Your task to perform on an android device: change the clock style Image 0: 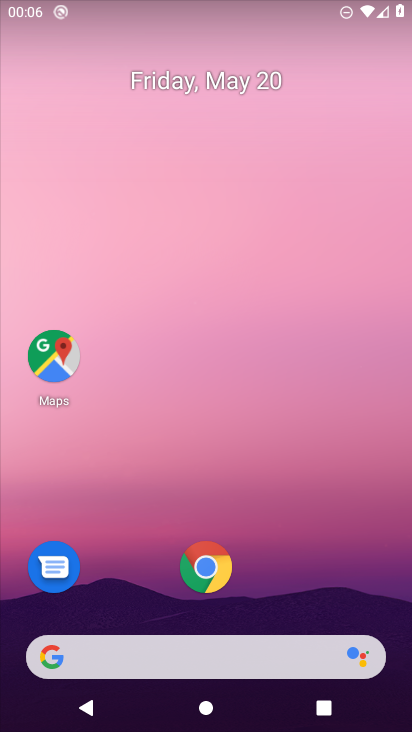
Step 0: press home button
Your task to perform on an android device: change the clock style Image 1: 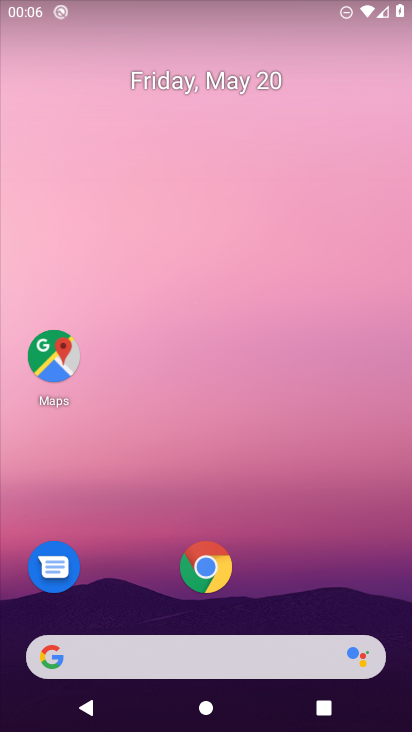
Step 1: press home button
Your task to perform on an android device: change the clock style Image 2: 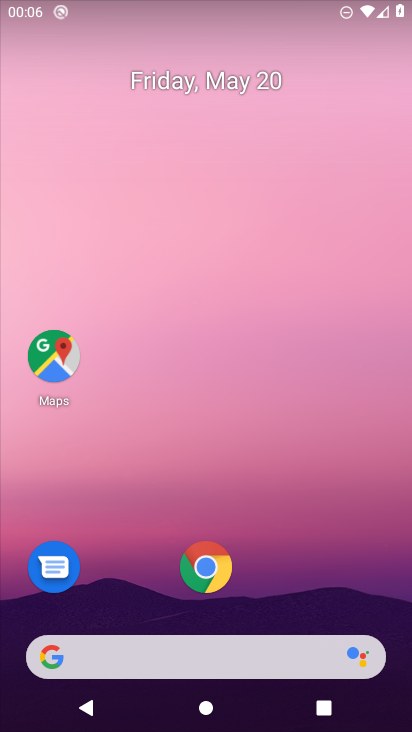
Step 2: drag from (265, 615) to (332, 36)
Your task to perform on an android device: change the clock style Image 3: 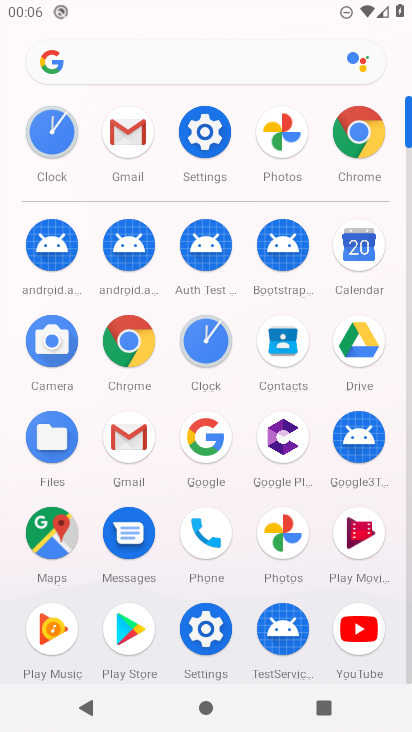
Step 3: click (53, 124)
Your task to perform on an android device: change the clock style Image 4: 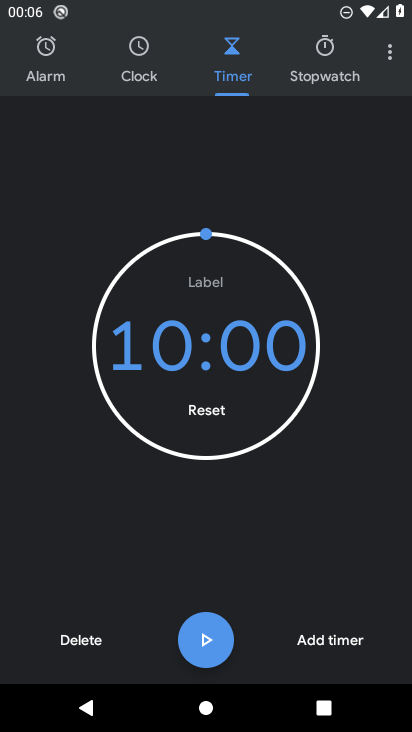
Step 4: click (386, 51)
Your task to perform on an android device: change the clock style Image 5: 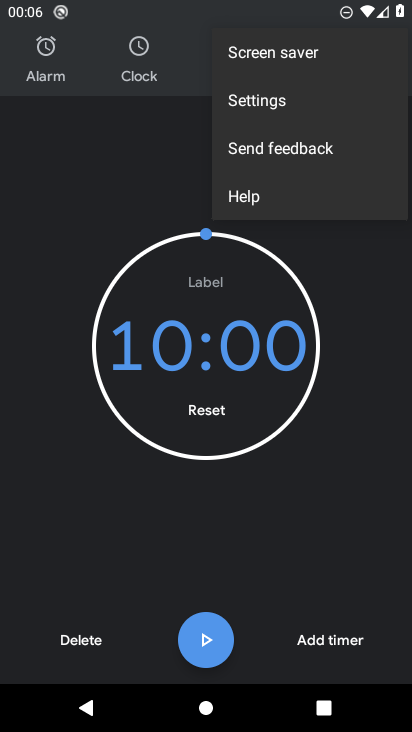
Step 5: click (300, 95)
Your task to perform on an android device: change the clock style Image 6: 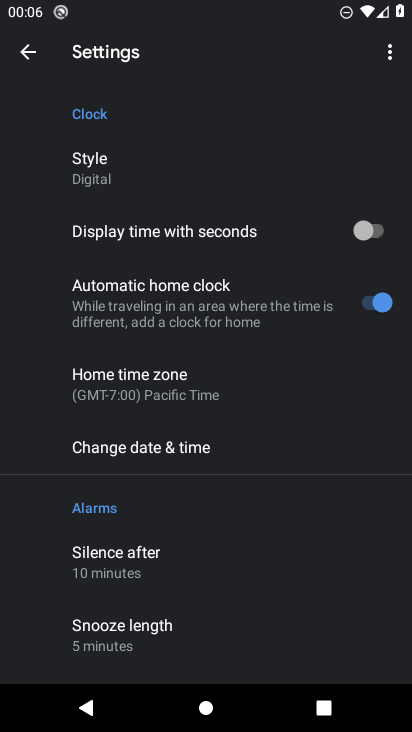
Step 6: click (132, 163)
Your task to perform on an android device: change the clock style Image 7: 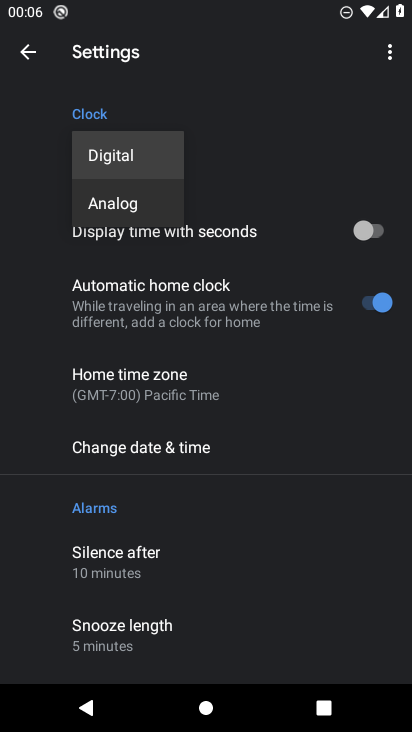
Step 7: click (158, 197)
Your task to perform on an android device: change the clock style Image 8: 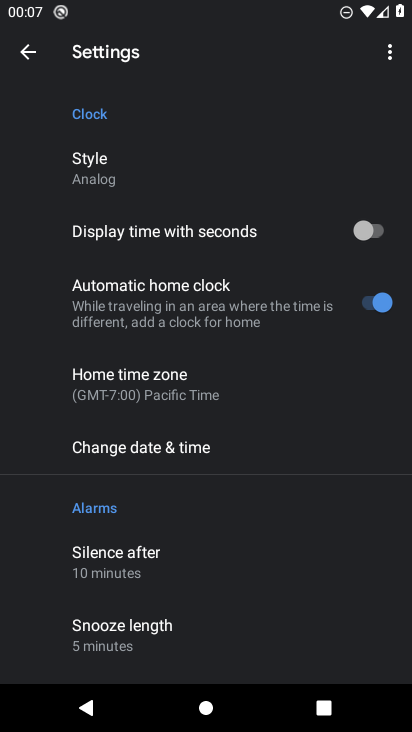
Step 8: task complete